Your task to perform on an android device: Open privacy settings Image 0: 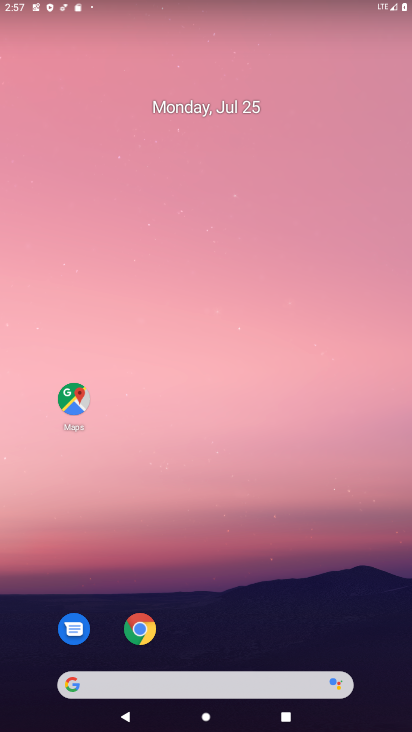
Step 0: drag from (180, 532) to (185, 25)
Your task to perform on an android device: Open privacy settings Image 1: 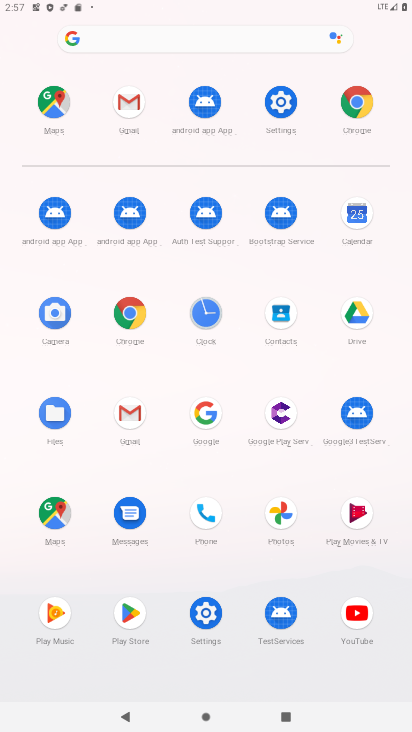
Step 1: click (207, 602)
Your task to perform on an android device: Open privacy settings Image 2: 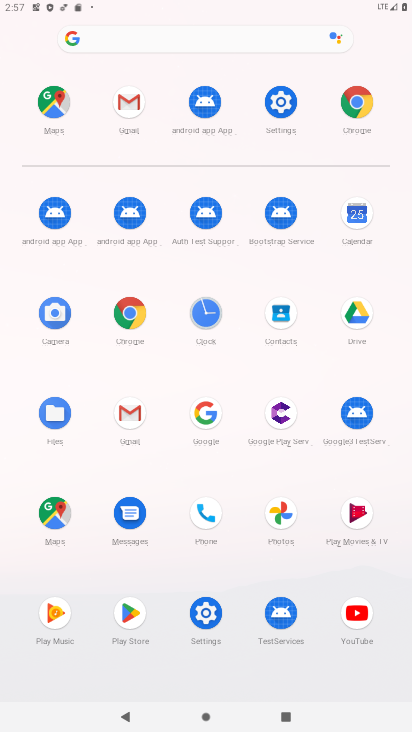
Step 2: click (207, 602)
Your task to perform on an android device: Open privacy settings Image 3: 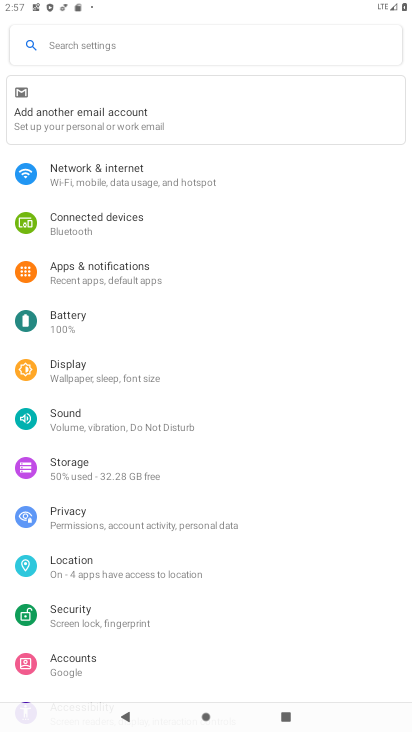
Step 3: drag from (94, 623) to (178, 182)
Your task to perform on an android device: Open privacy settings Image 4: 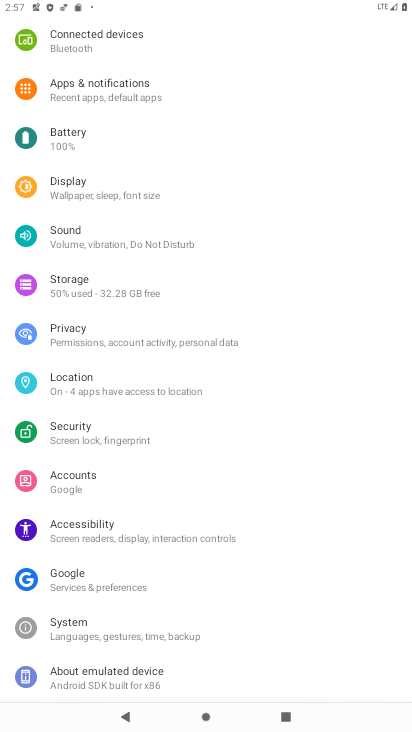
Step 4: click (78, 340)
Your task to perform on an android device: Open privacy settings Image 5: 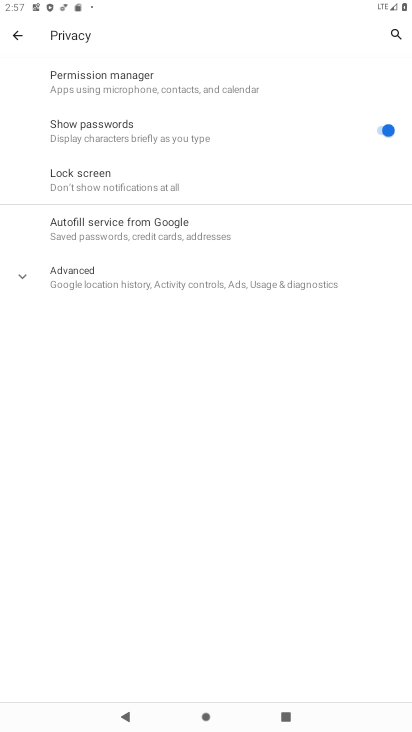
Step 5: task complete